Your task to perform on an android device: Go to eBay Image 0: 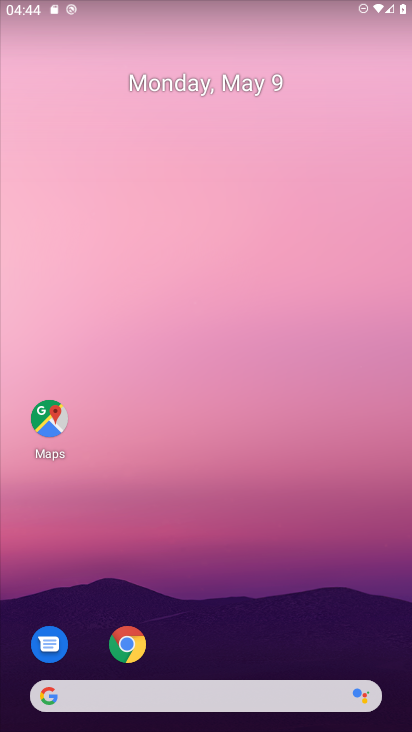
Step 0: click (119, 639)
Your task to perform on an android device: Go to eBay Image 1: 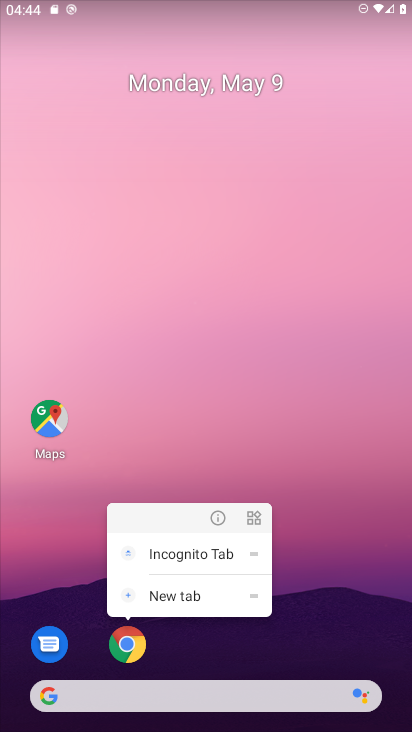
Step 1: click (128, 646)
Your task to perform on an android device: Go to eBay Image 2: 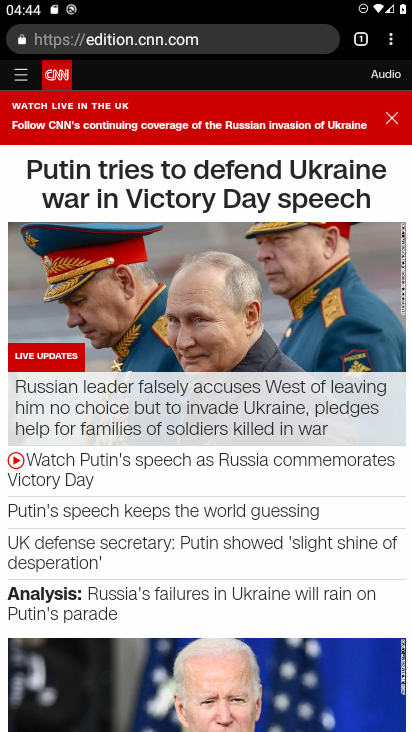
Step 2: click (138, 43)
Your task to perform on an android device: Go to eBay Image 3: 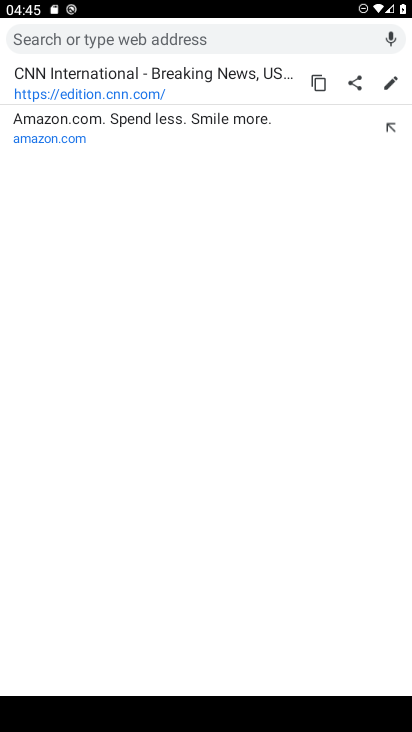
Step 3: type "eBay"
Your task to perform on an android device: Go to eBay Image 4: 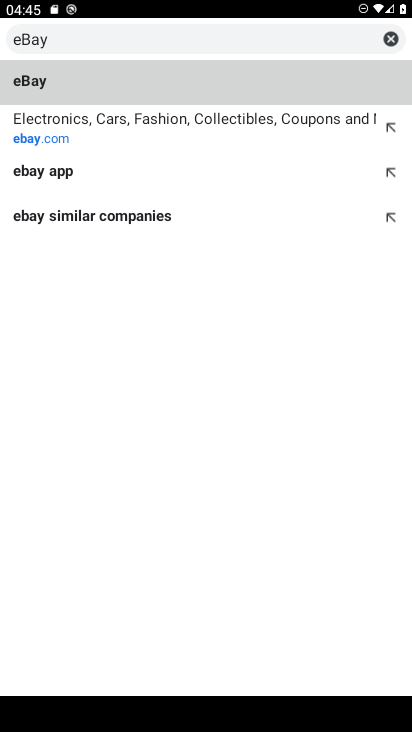
Step 4: click (56, 78)
Your task to perform on an android device: Go to eBay Image 5: 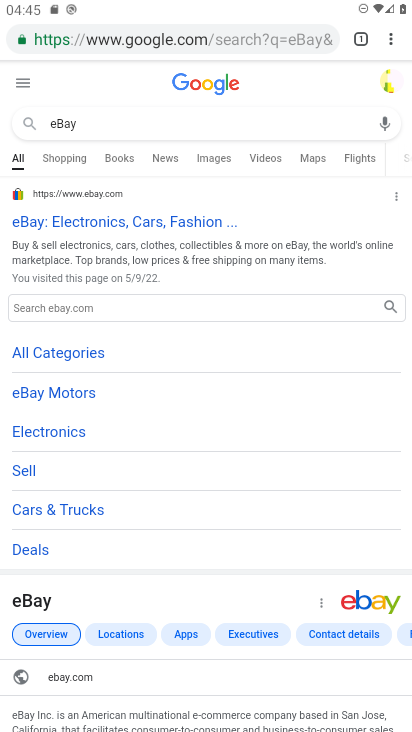
Step 5: click (106, 223)
Your task to perform on an android device: Go to eBay Image 6: 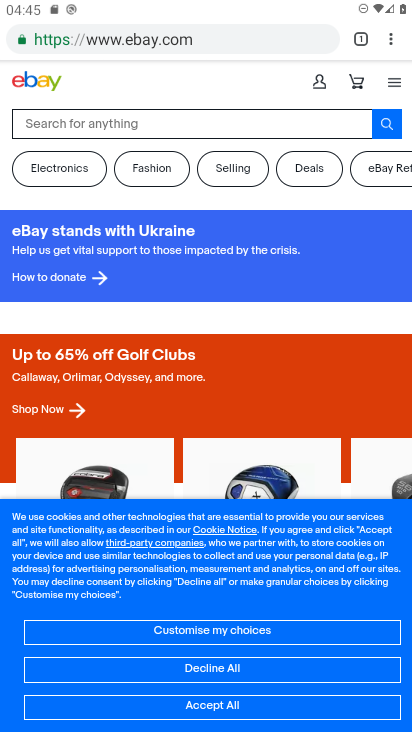
Step 6: task complete